Your task to perform on an android device: Go to Amazon Image 0: 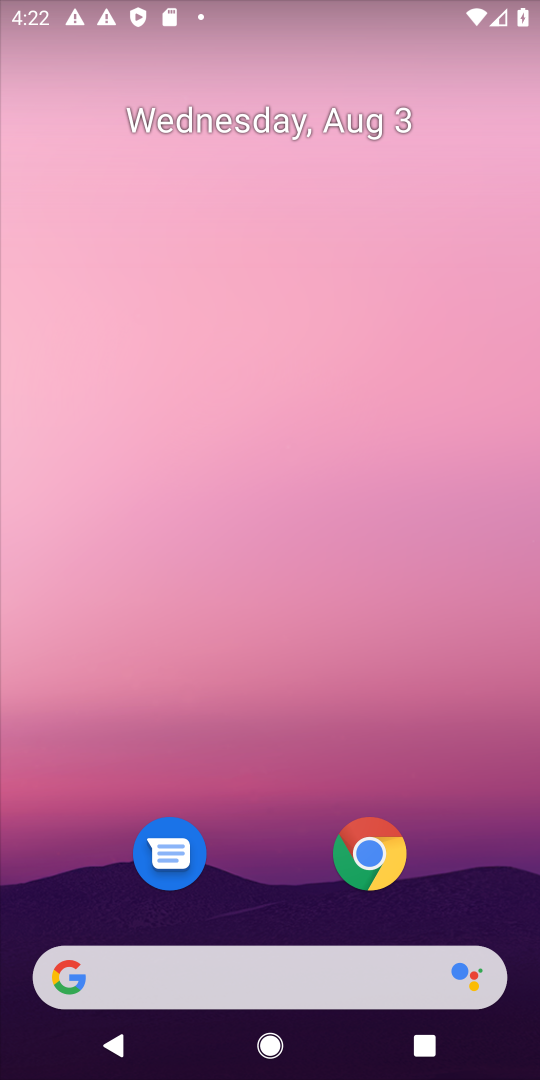
Step 0: click (379, 857)
Your task to perform on an android device: Go to Amazon Image 1: 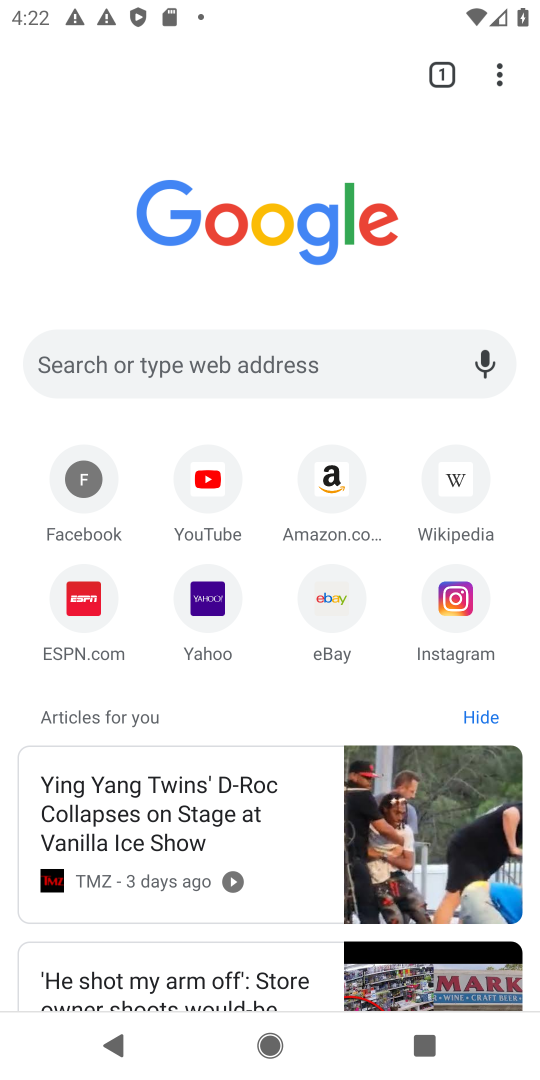
Step 1: click (303, 495)
Your task to perform on an android device: Go to Amazon Image 2: 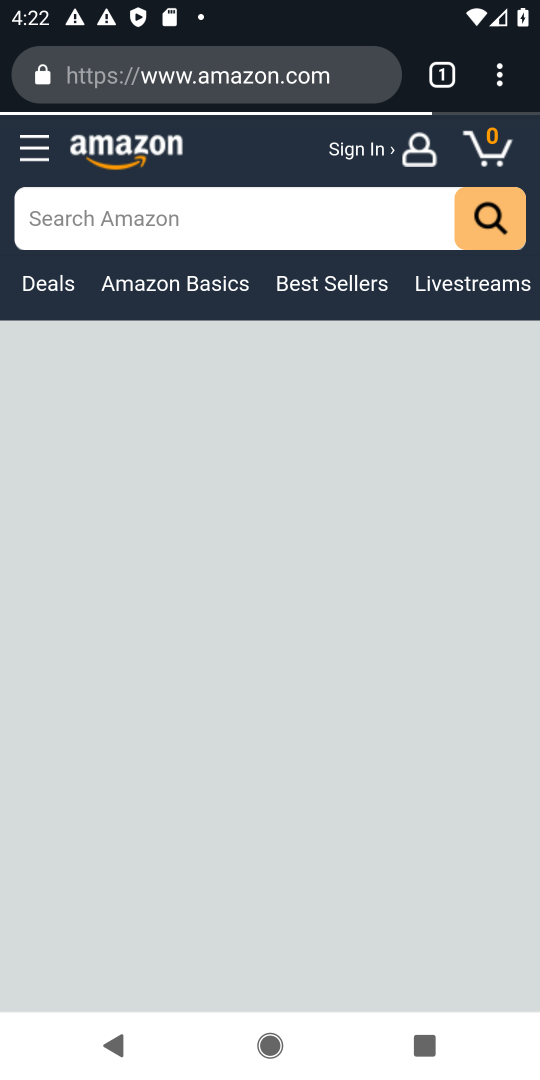
Step 2: task complete